Your task to perform on an android device: allow cookies in the chrome app Image 0: 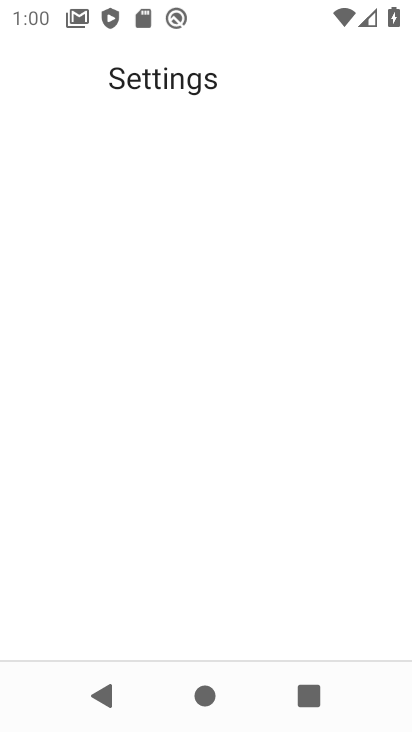
Step 0: drag from (246, 473) to (281, 324)
Your task to perform on an android device: allow cookies in the chrome app Image 1: 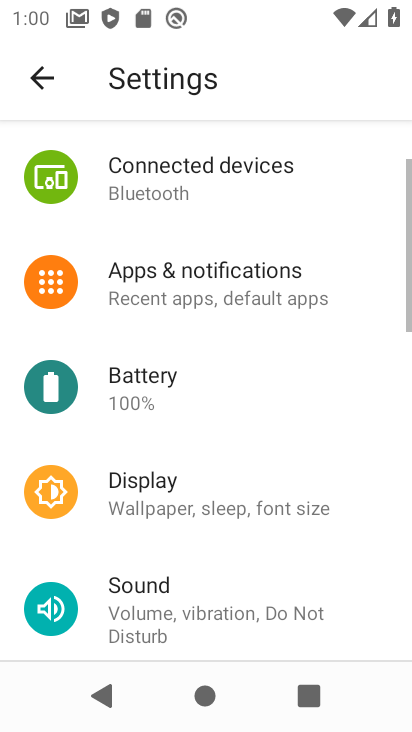
Step 1: press home button
Your task to perform on an android device: allow cookies in the chrome app Image 2: 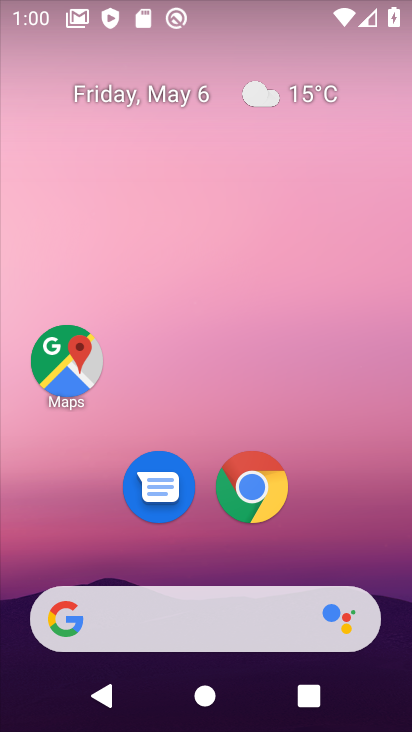
Step 2: drag from (266, 368) to (294, 125)
Your task to perform on an android device: allow cookies in the chrome app Image 3: 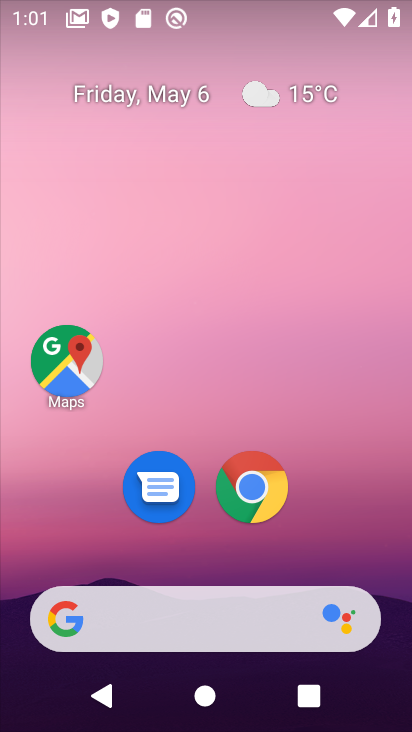
Step 3: drag from (234, 510) to (284, 126)
Your task to perform on an android device: allow cookies in the chrome app Image 4: 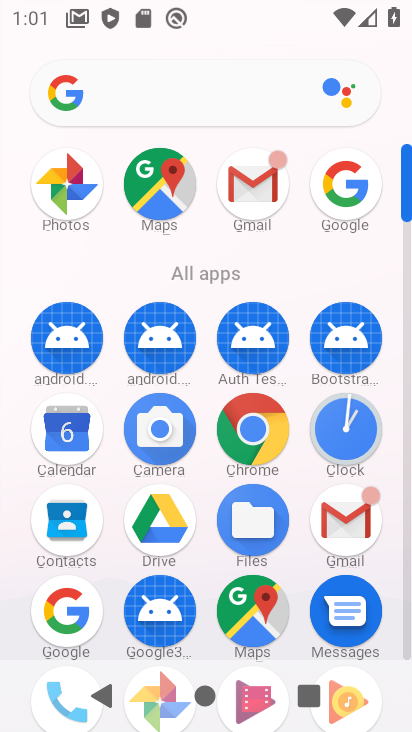
Step 4: click (261, 424)
Your task to perform on an android device: allow cookies in the chrome app Image 5: 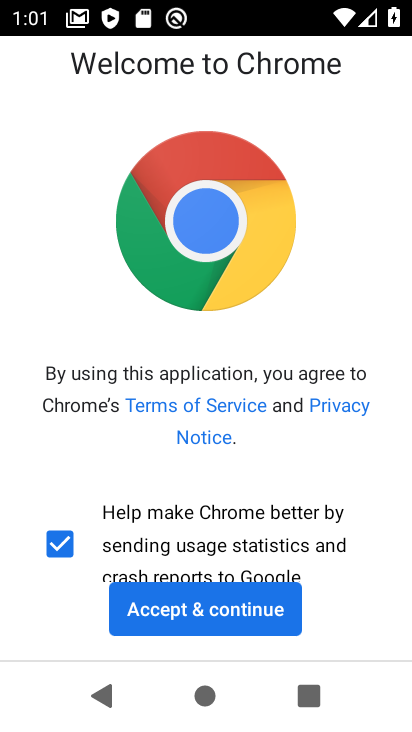
Step 5: click (246, 601)
Your task to perform on an android device: allow cookies in the chrome app Image 6: 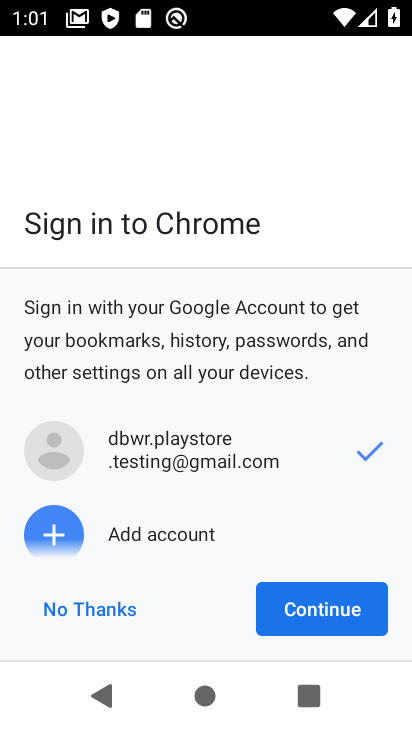
Step 6: click (305, 605)
Your task to perform on an android device: allow cookies in the chrome app Image 7: 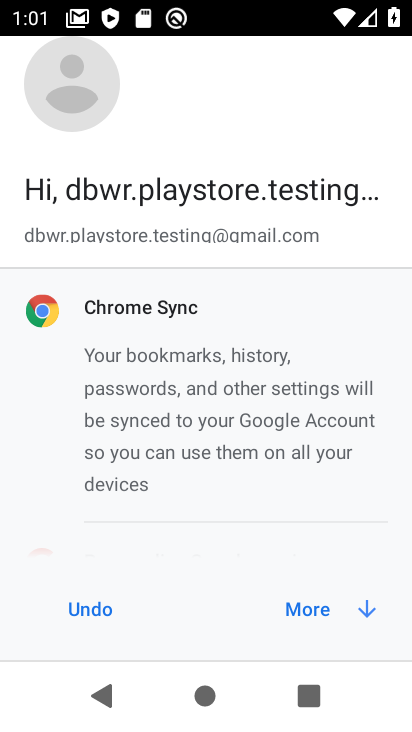
Step 7: click (300, 609)
Your task to perform on an android device: allow cookies in the chrome app Image 8: 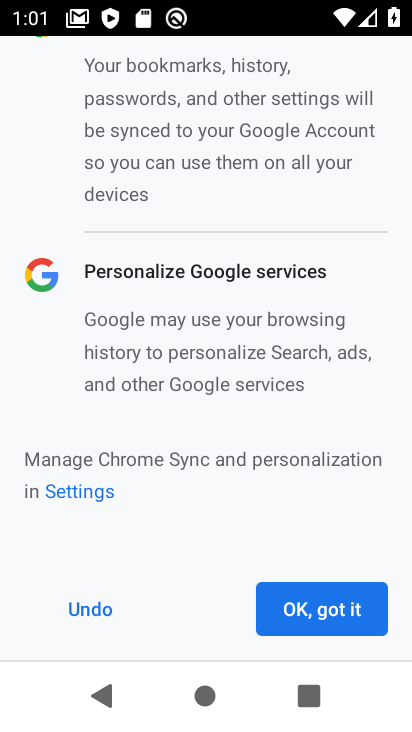
Step 8: click (300, 612)
Your task to perform on an android device: allow cookies in the chrome app Image 9: 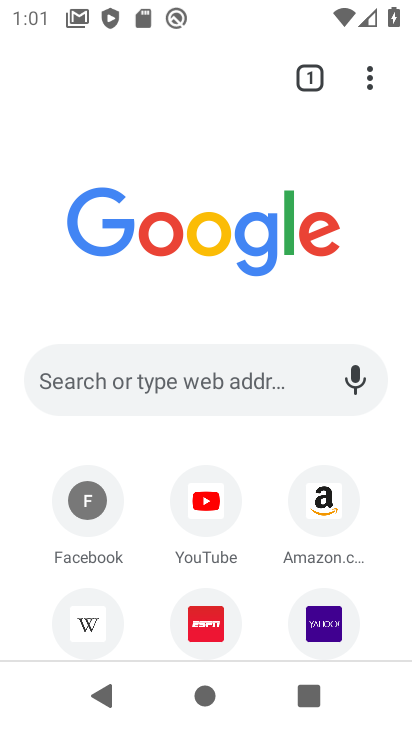
Step 9: click (369, 76)
Your task to perform on an android device: allow cookies in the chrome app Image 10: 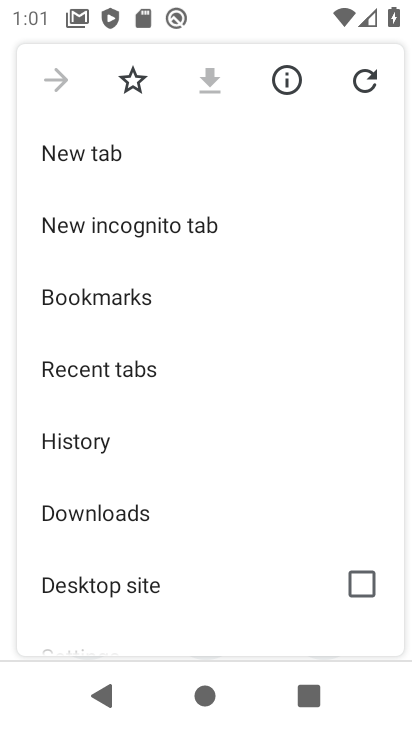
Step 10: drag from (181, 457) to (168, 322)
Your task to perform on an android device: allow cookies in the chrome app Image 11: 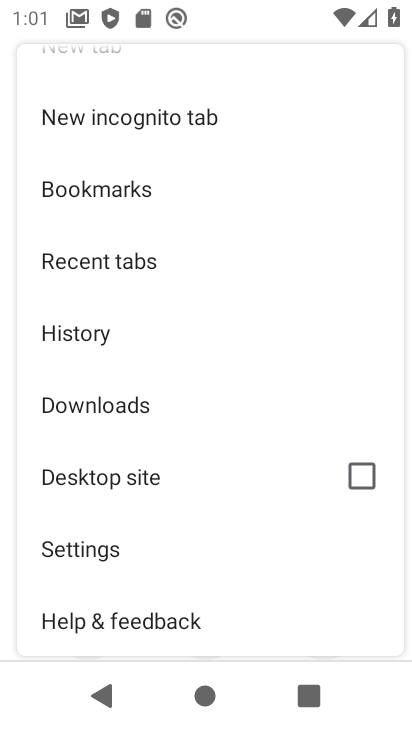
Step 11: drag from (152, 511) to (141, 368)
Your task to perform on an android device: allow cookies in the chrome app Image 12: 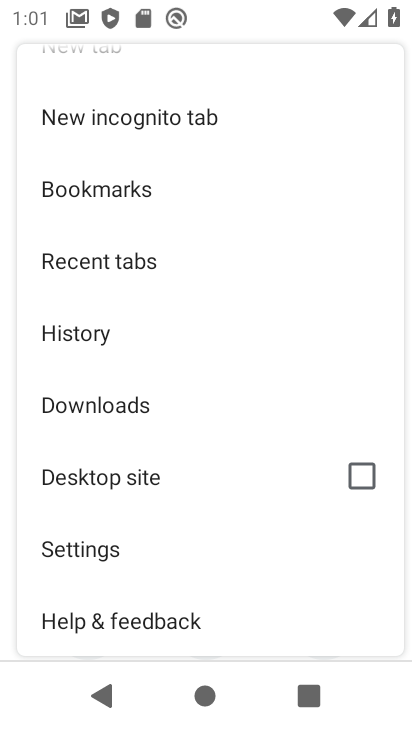
Step 12: click (71, 555)
Your task to perform on an android device: allow cookies in the chrome app Image 13: 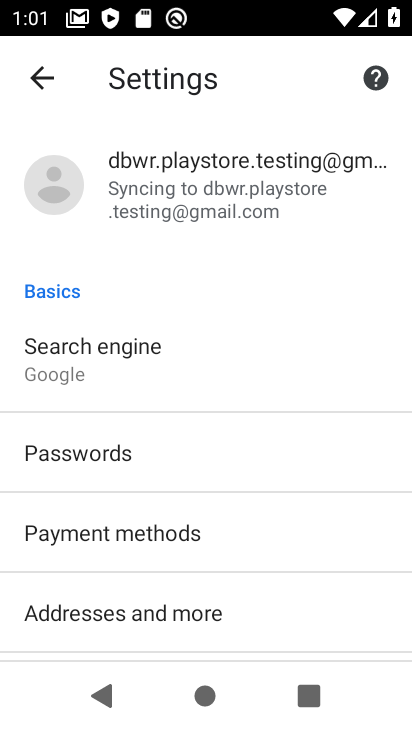
Step 13: drag from (150, 607) to (141, 360)
Your task to perform on an android device: allow cookies in the chrome app Image 14: 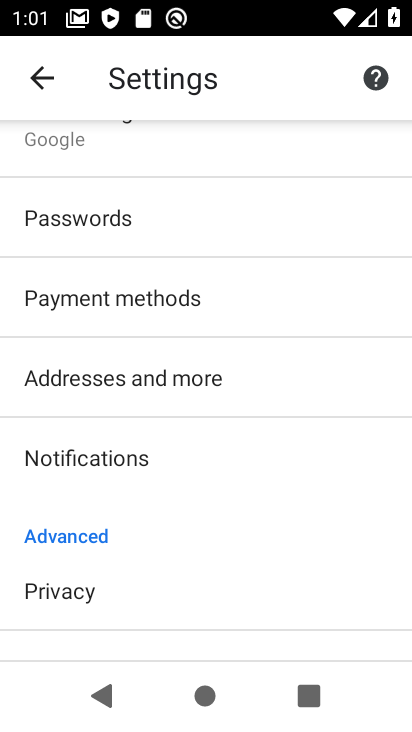
Step 14: drag from (141, 590) to (164, 263)
Your task to perform on an android device: allow cookies in the chrome app Image 15: 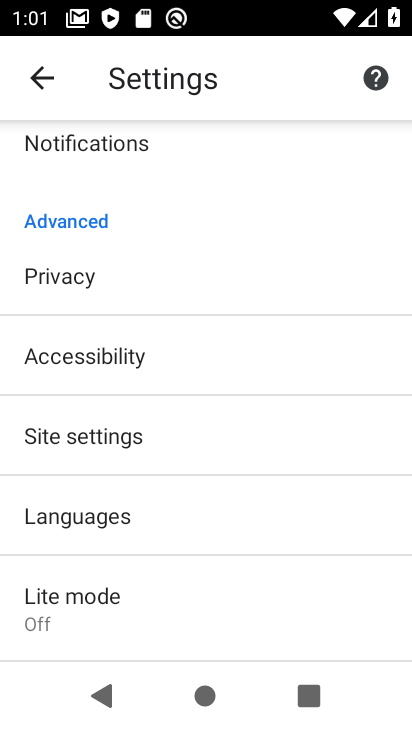
Step 15: click (110, 438)
Your task to perform on an android device: allow cookies in the chrome app Image 16: 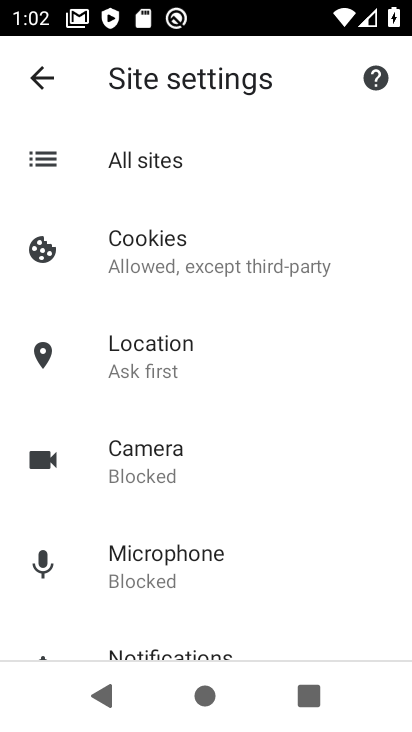
Step 16: click (222, 268)
Your task to perform on an android device: allow cookies in the chrome app Image 17: 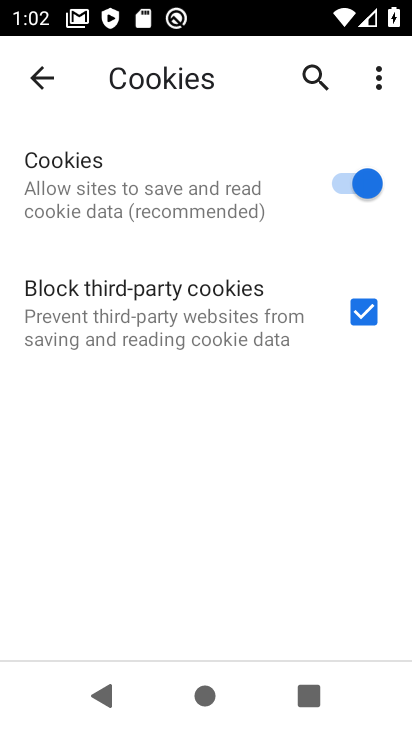
Step 17: task complete